Your task to perform on an android device: read, delete, or share a saved page in the chrome app Image 0: 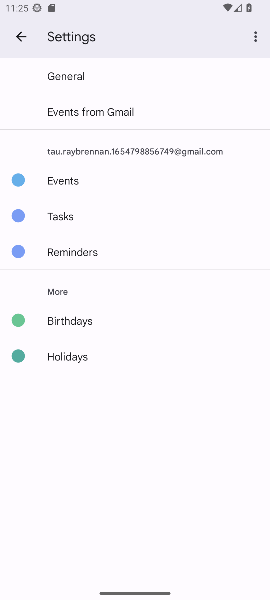
Step 0: press back button
Your task to perform on an android device: read, delete, or share a saved page in the chrome app Image 1: 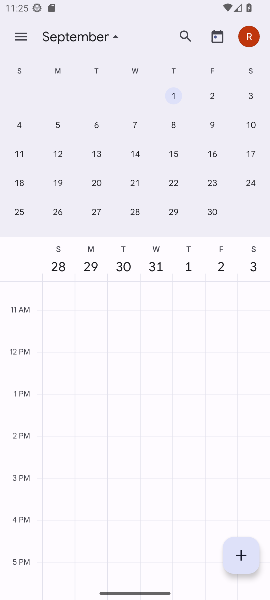
Step 1: press back button
Your task to perform on an android device: read, delete, or share a saved page in the chrome app Image 2: 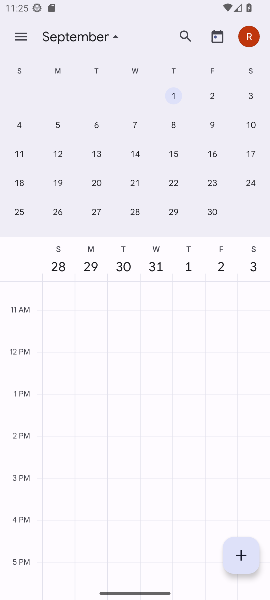
Step 2: press back button
Your task to perform on an android device: read, delete, or share a saved page in the chrome app Image 3: 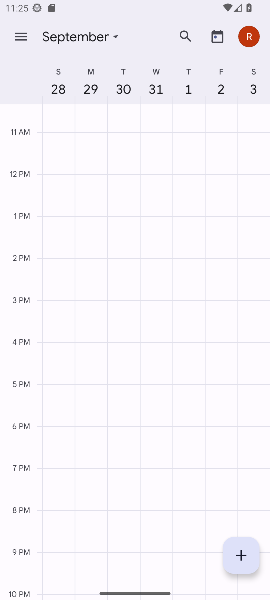
Step 3: press back button
Your task to perform on an android device: read, delete, or share a saved page in the chrome app Image 4: 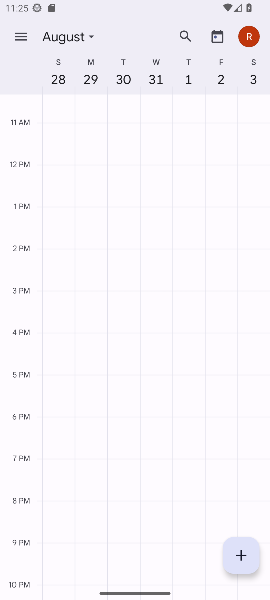
Step 4: press back button
Your task to perform on an android device: read, delete, or share a saved page in the chrome app Image 5: 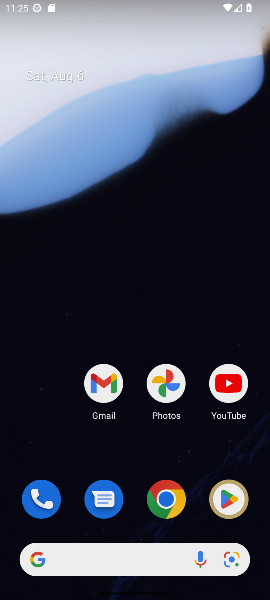
Step 5: press back button
Your task to perform on an android device: read, delete, or share a saved page in the chrome app Image 6: 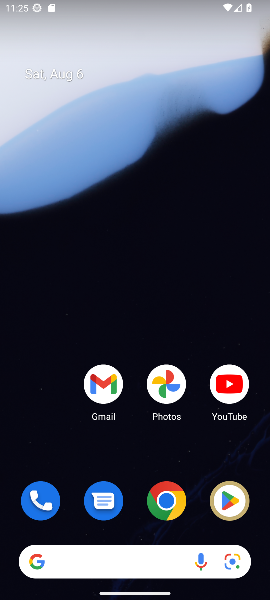
Step 6: click (158, 507)
Your task to perform on an android device: read, delete, or share a saved page in the chrome app Image 7: 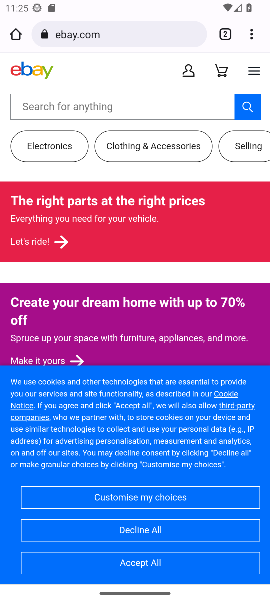
Step 7: click (250, 30)
Your task to perform on an android device: read, delete, or share a saved page in the chrome app Image 8: 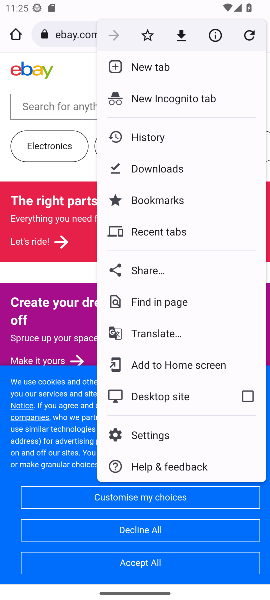
Step 8: task complete